Your task to perform on an android device: read, delete, or share a saved page in the chrome app Image 0: 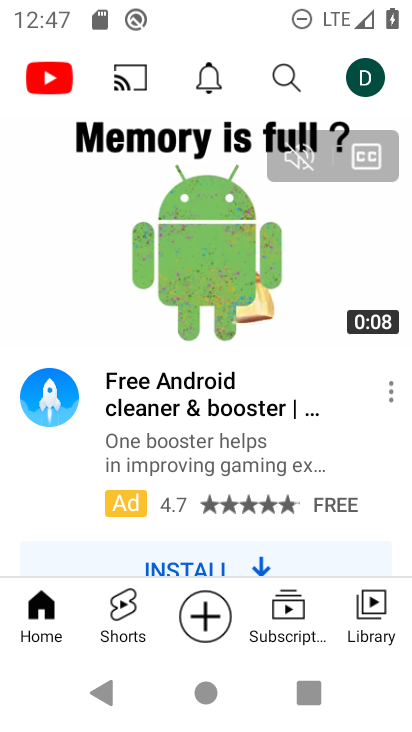
Step 0: press home button
Your task to perform on an android device: read, delete, or share a saved page in the chrome app Image 1: 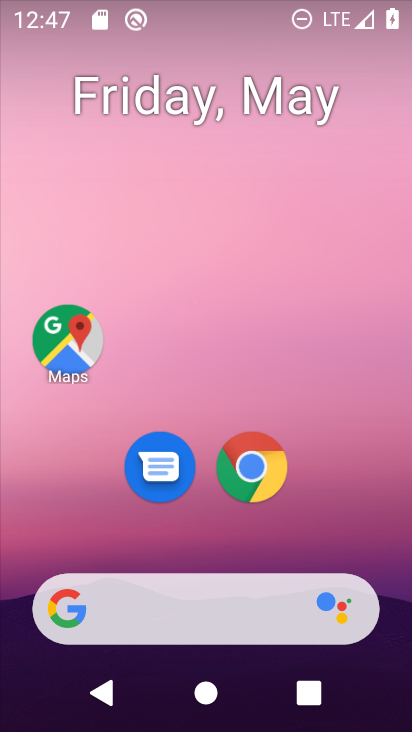
Step 1: drag from (314, 614) to (373, 31)
Your task to perform on an android device: read, delete, or share a saved page in the chrome app Image 2: 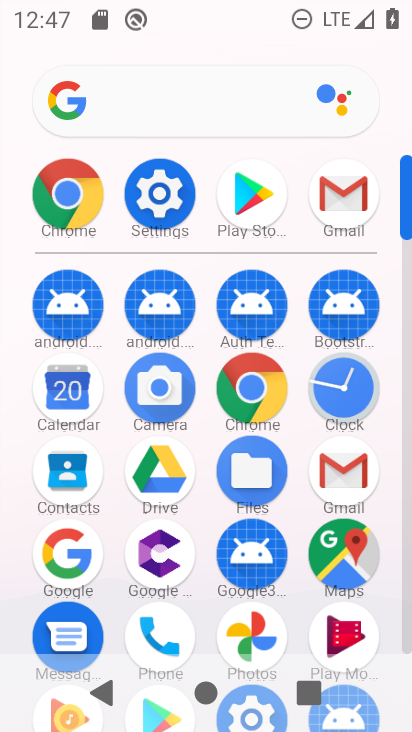
Step 2: click (249, 386)
Your task to perform on an android device: read, delete, or share a saved page in the chrome app Image 3: 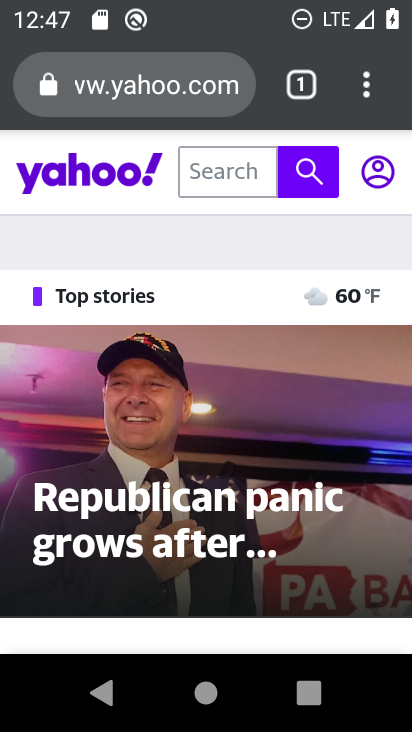
Step 3: task complete